Your task to perform on an android device: Open Wikipedia Image 0: 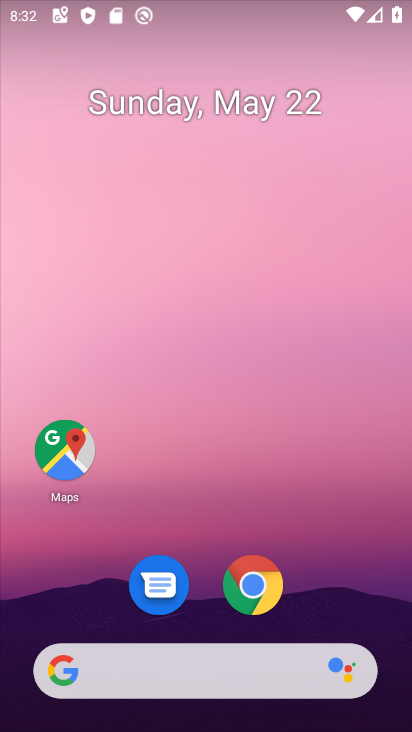
Step 0: click (250, 581)
Your task to perform on an android device: Open Wikipedia Image 1: 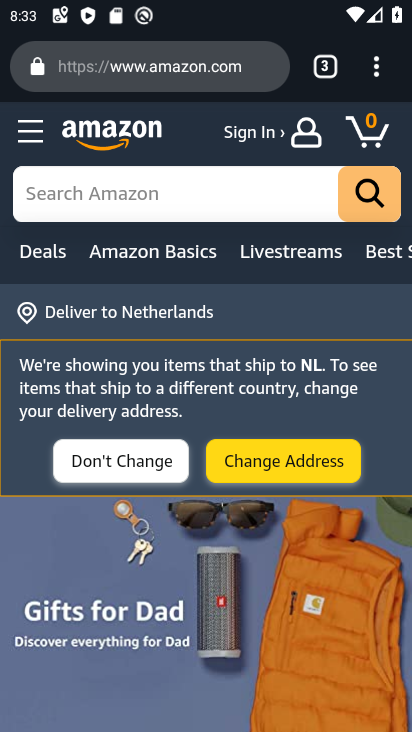
Step 1: click (324, 65)
Your task to perform on an android device: Open Wikipedia Image 2: 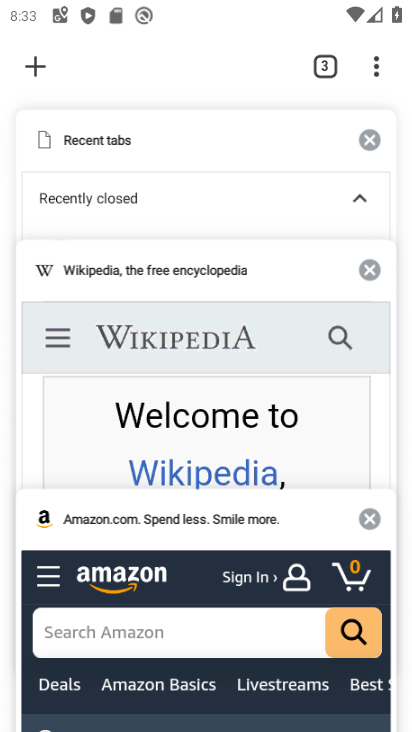
Step 2: click (256, 368)
Your task to perform on an android device: Open Wikipedia Image 3: 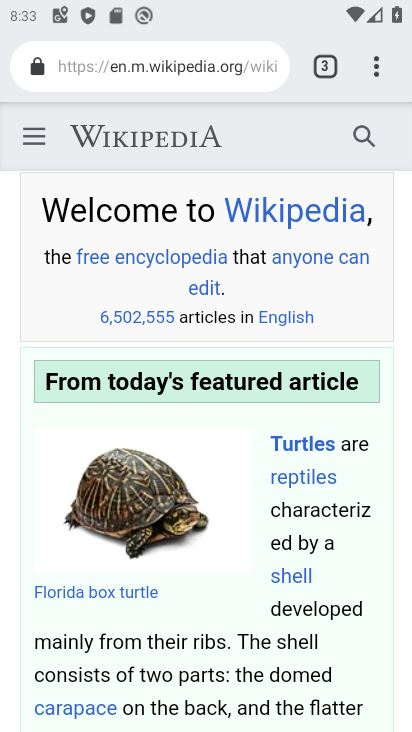
Step 3: task complete